Your task to perform on an android device: Turn on the flashlight Image 0: 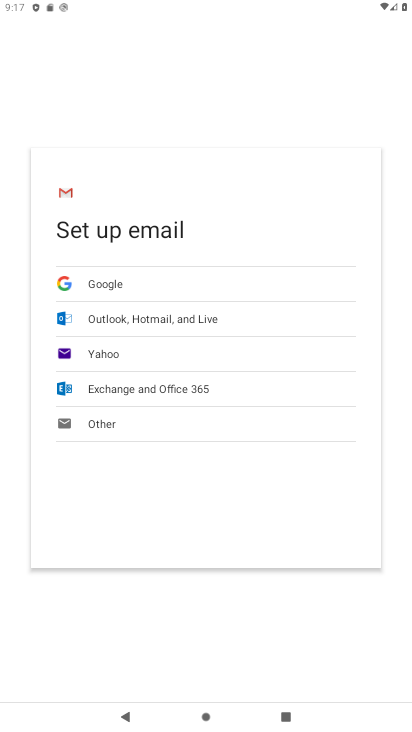
Step 0: task complete